Your task to perform on an android device: open wifi settings Image 0: 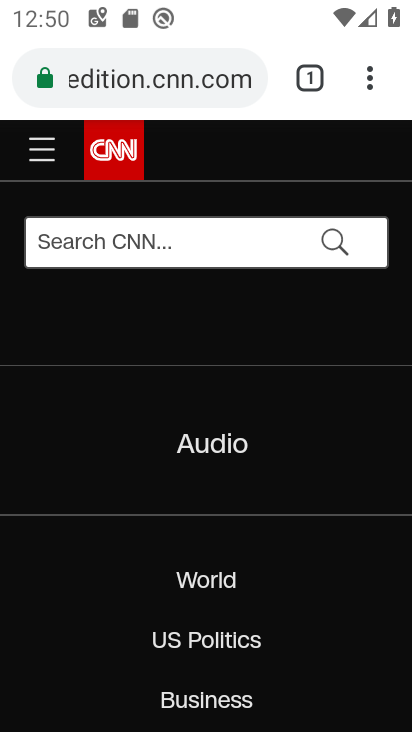
Step 0: press home button
Your task to perform on an android device: open wifi settings Image 1: 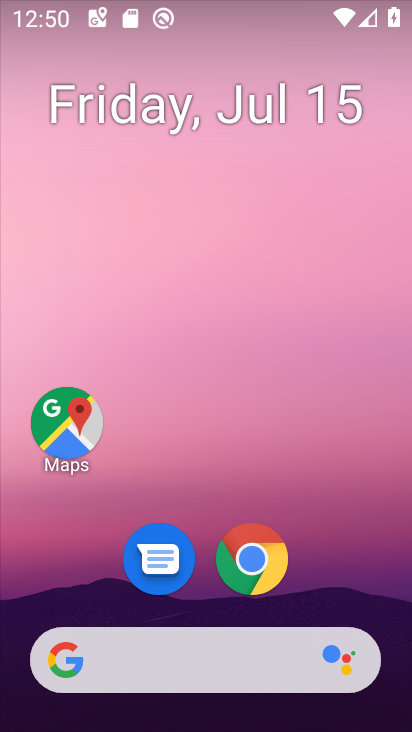
Step 1: drag from (371, 577) to (370, 174)
Your task to perform on an android device: open wifi settings Image 2: 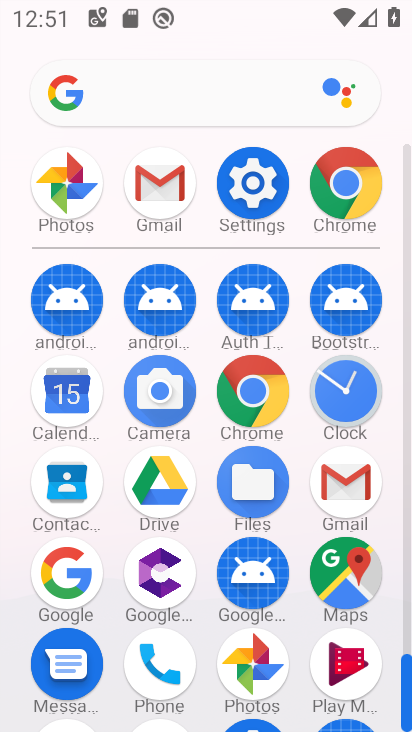
Step 2: click (263, 211)
Your task to perform on an android device: open wifi settings Image 3: 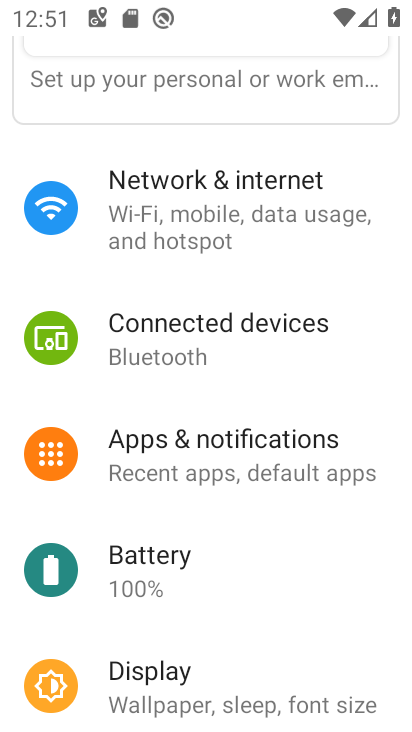
Step 3: drag from (335, 562) to (346, 463)
Your task to perform on an android device: open wifi settings Image 4: 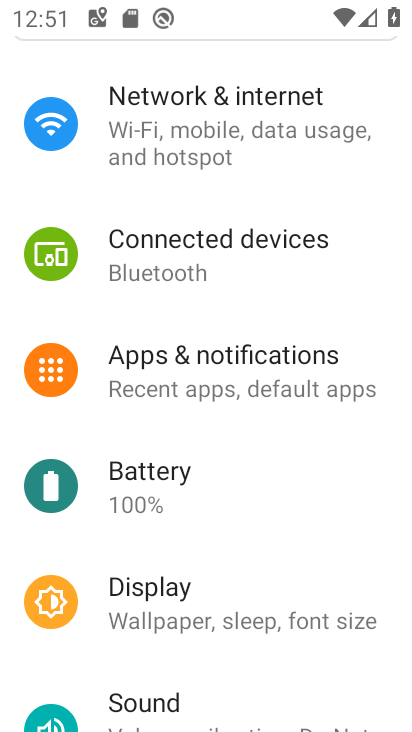
Step 4: drag from (364, 618) to (375, 531)
Your task to perform on an android device: open wifi settings Image 5: 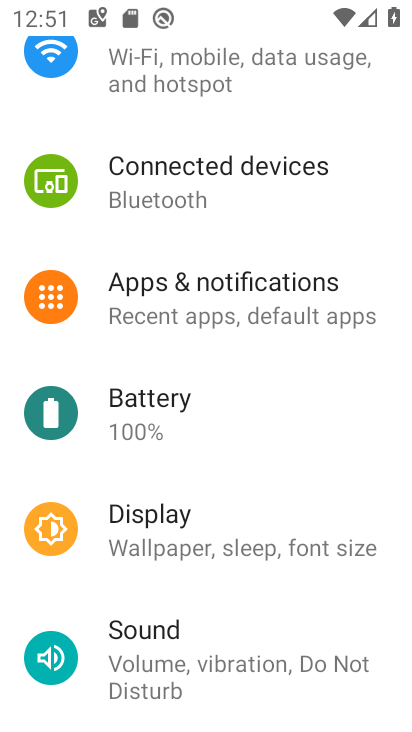
Step 5: drag from (378, 632) to (387, 515)
Your task to perform on an android device: open wifi settings Image 6: 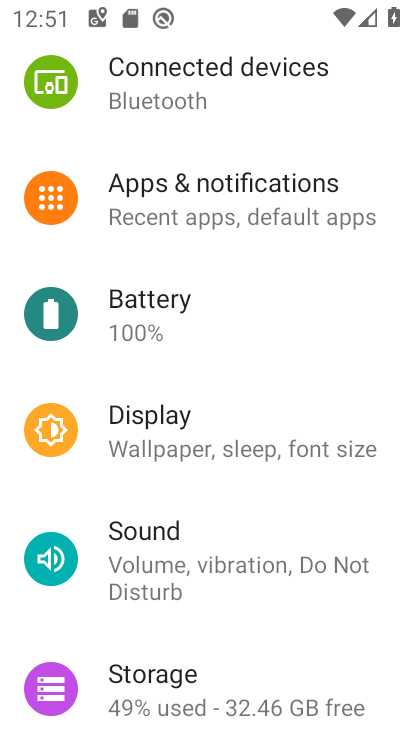
Step 6: drag from (386, 647) to (387, 525)
Your task to perform on an android device: open wifi settings Image 7: 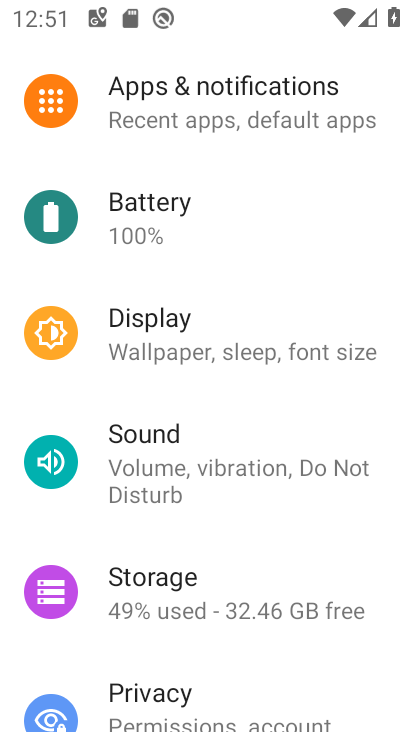
Step 7: drag from (354, 672) to (362, 567)
Your task to perform on an android device: open wifi settings Image 8: 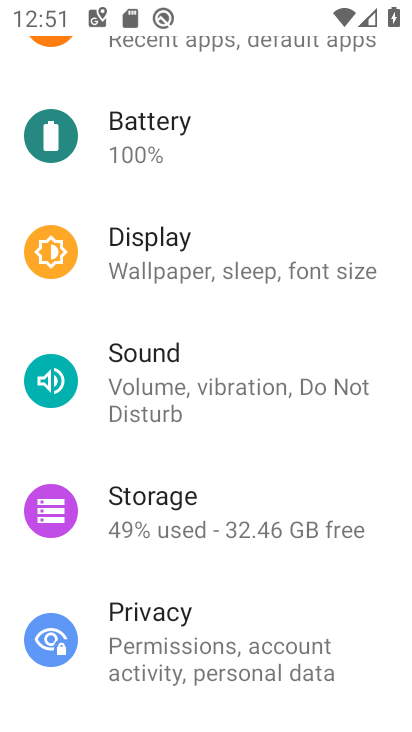
Step 8: drag from (353, 656) to (357, 550)
Your task to perform on an android device: open wifi settings Image 9: 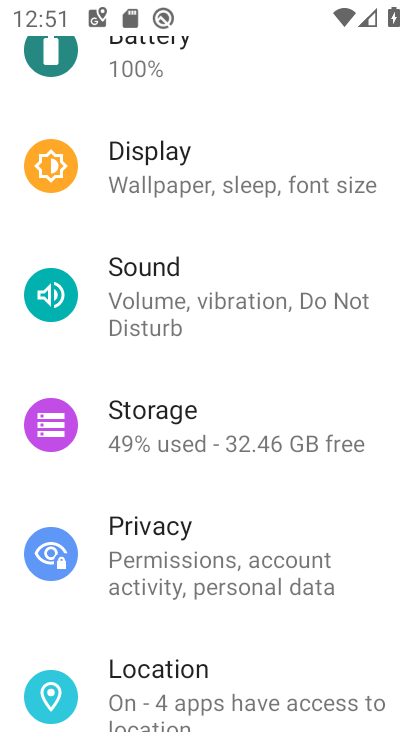
Step 9: drag from (353, 621) to (366, 524)
Your task to perform on an android device: open wifi settings Image 10: 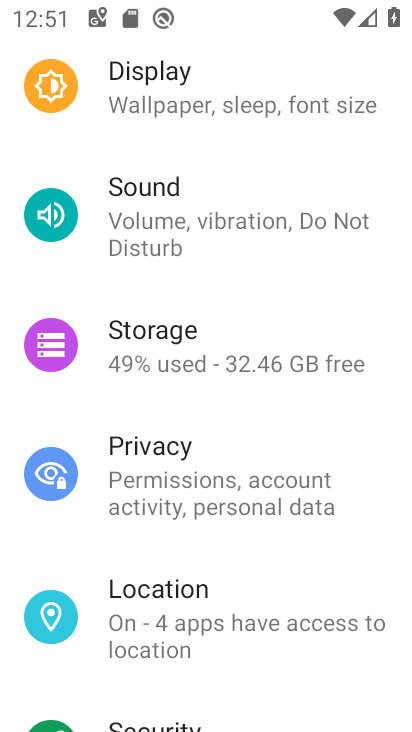
Step 10: drag from (361, 544) to (368, 428)
Your task to perform on an android device: open wifi settings Image 11: 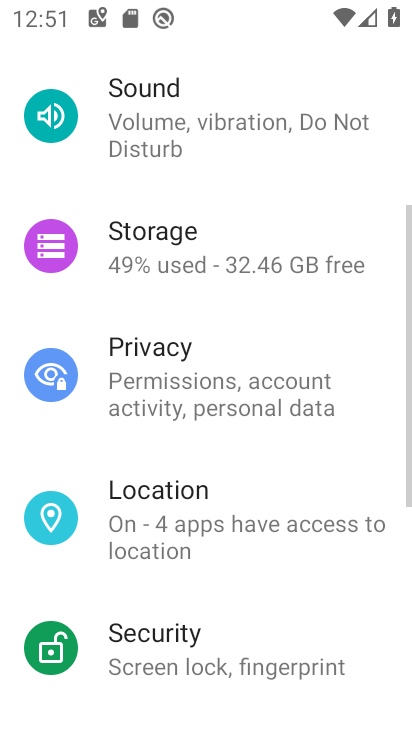
Step 11: drag from (378, 332) to (354, 528)
Your task to perform on an android device: open wifi settings Image 12: 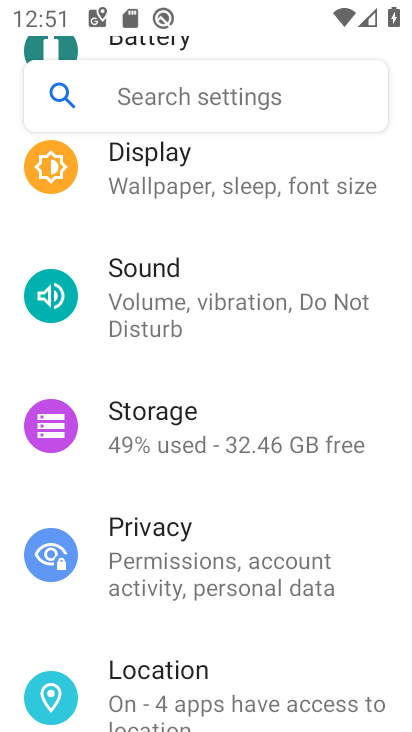
Step 12: drag from (350, 368) to (346, 505)
Your task to perform on an android device: open wifi settings Image 13: 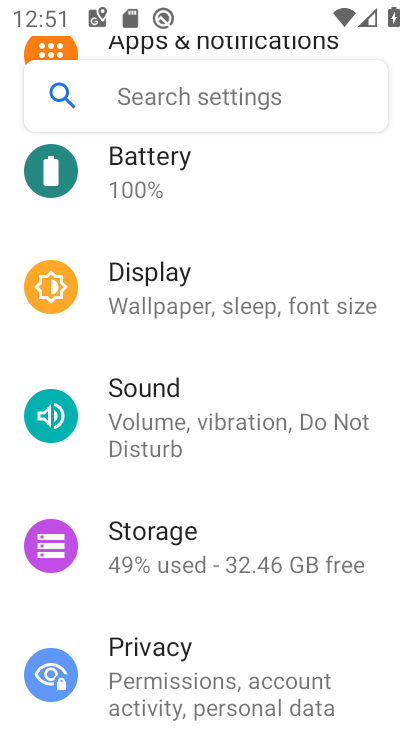
Step 13: drag from (363, 360) to (355, 527)
Your task to perform on an android device: open wifi settings Image 14: 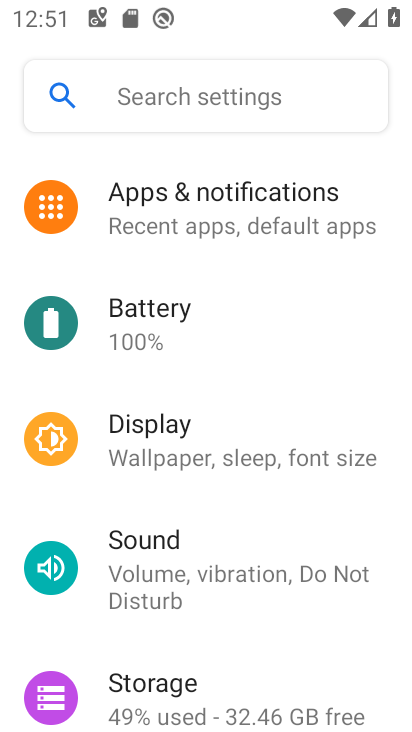
Step 14: drag from (359, 321) to (348, 433)
Your task to perform on an android device: open wifi settings Image 15: 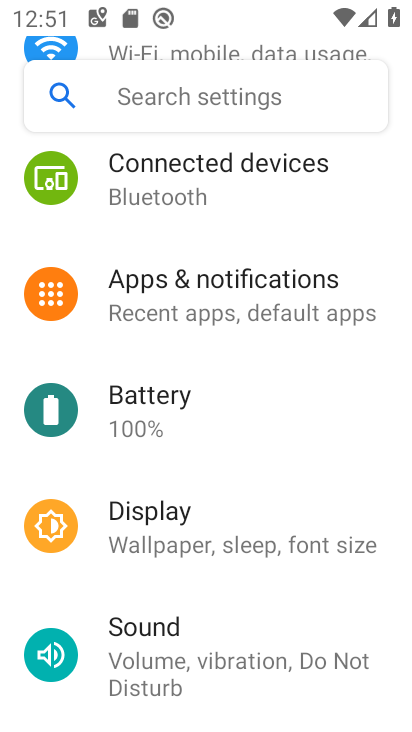
Step 15: drag from (369, 234) to (370, 425)
Your task to perform on an android device: open wifi settings Image 16: 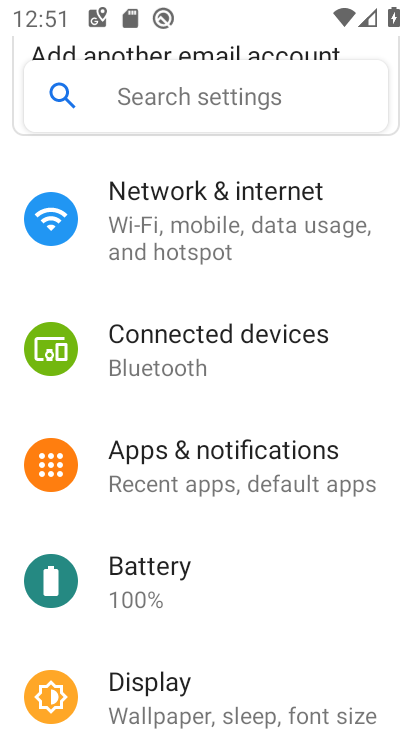
Step 16: drag from (382, 241) to (362, 358)
Your task to perform on an android device: open wifi settings Image 17: 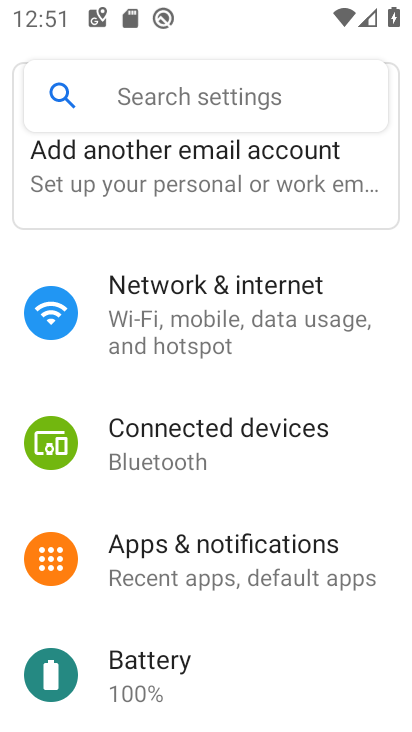
Step 17: click (319, 310)
Your task to perform on an android device: open wifi settings Image 18: 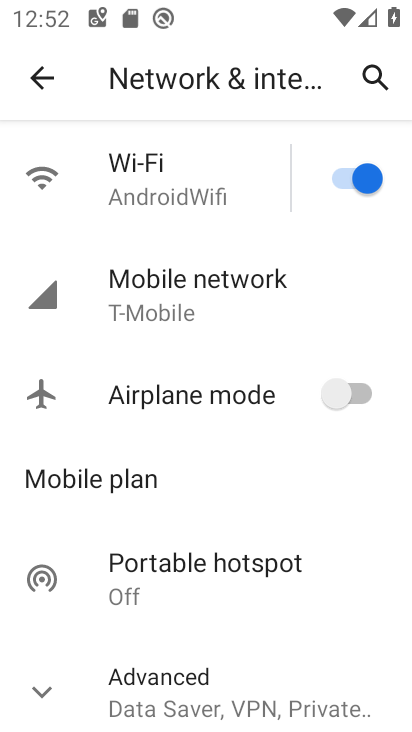
Step 18: click (221, 170)
Your task to perform on an android device: open wifi settings Image 19: 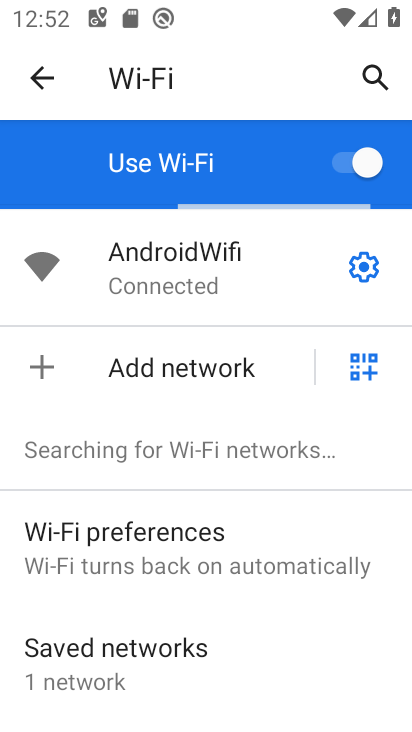
Step 19: task complete